Your task to perform on an android device: Search for a dining table on crateandbarrel.com Image 0: 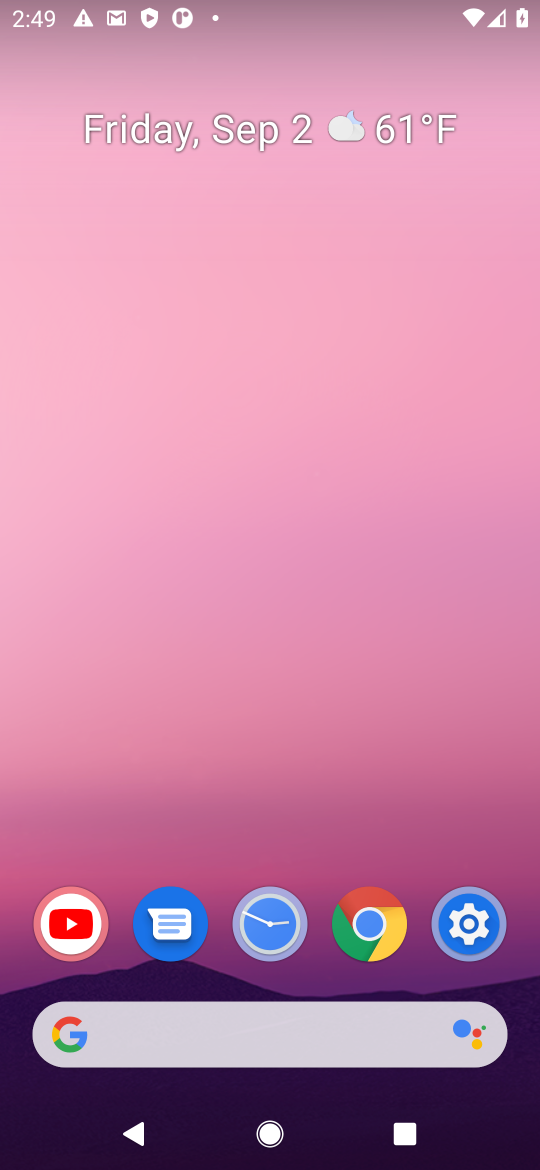
Step 0: press home button
Your task to perform on an android device: Search for a dining table on crateandbarrel.com Image 1: 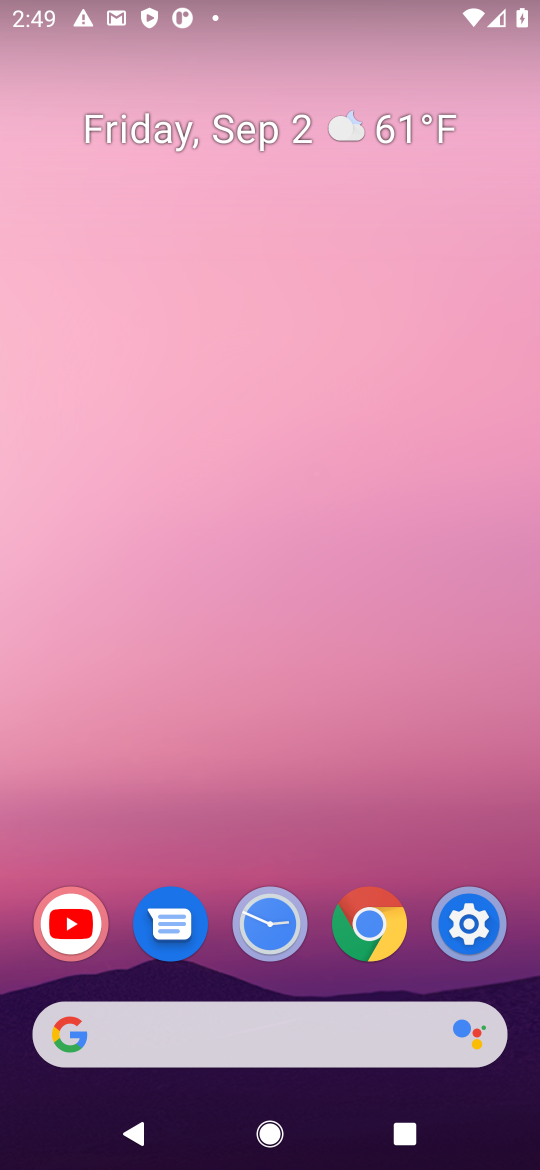
Step 1: click (333, 1031)
Your task to perform on an android device: Search for a dining table on crateandbarrel.com Image 2: 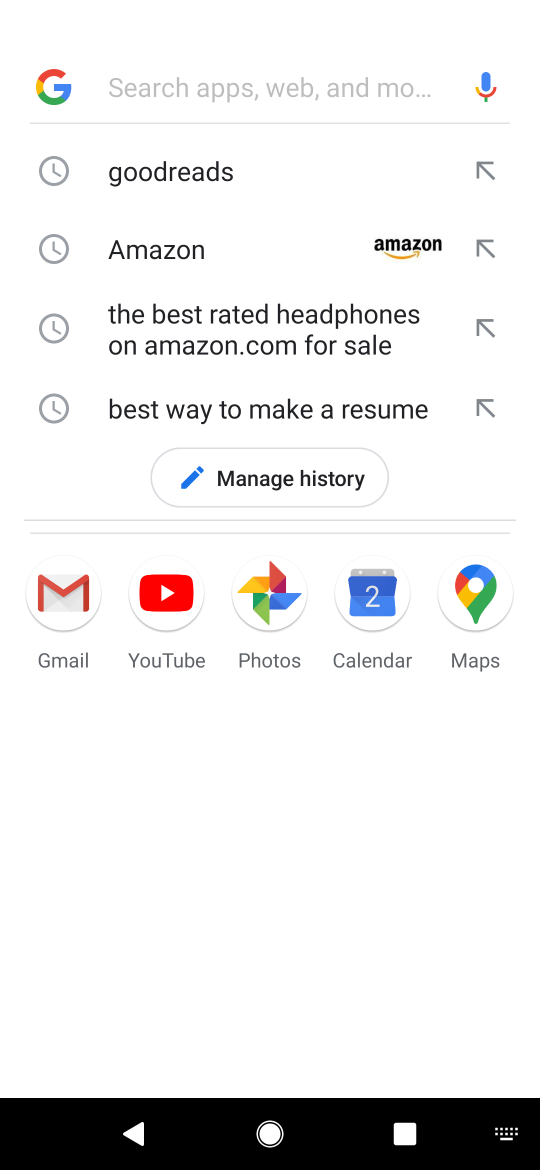
Step 2: press enter
Your task to perform on an android device: Search for a dining table on crateandbarrel.com Image 3: 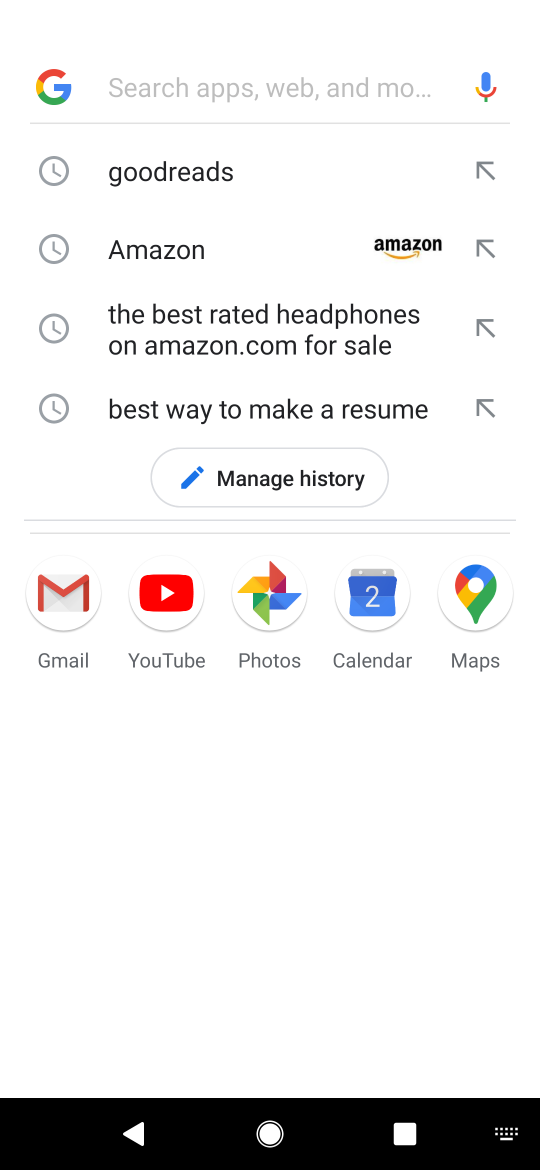
Step 3: type "crateandbarrel.com"
Your task to perform on an android device: Search for a dining table on crateandbarrel.com Image 4: 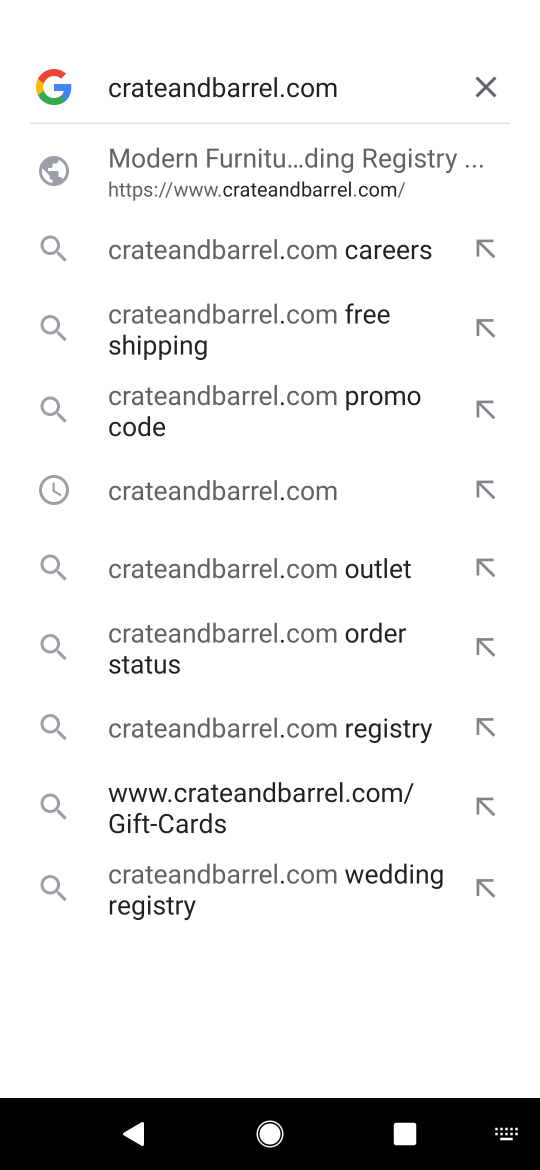
Step 4: click (279, 176)
Your task to perform on an android device: Search for a dining table on crateandbarrel.com Image 5: 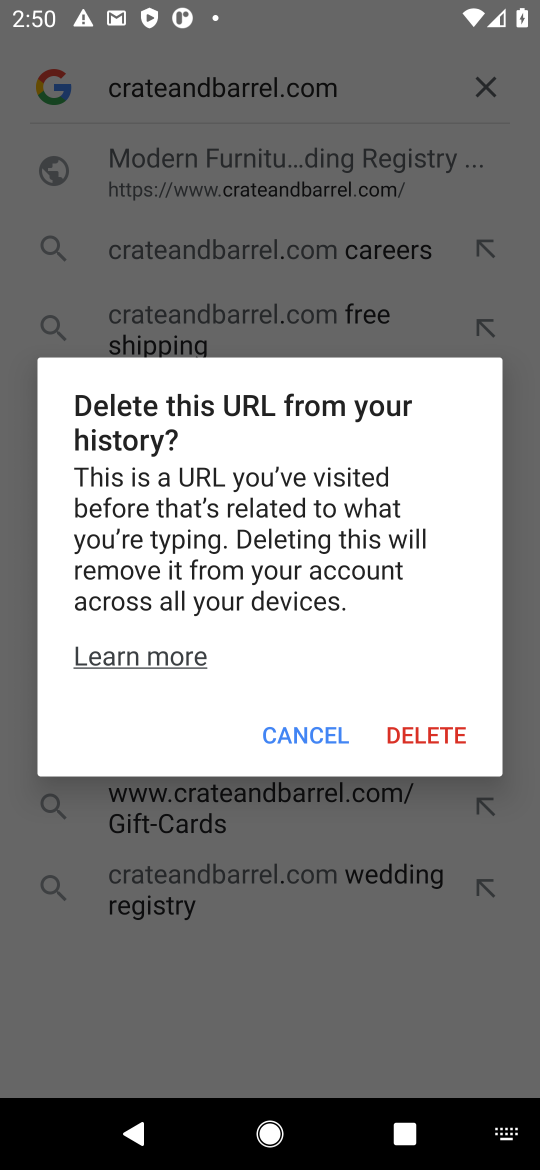
Step 5: click (320, 733)
Your task to perform on an android device: Search for a dining table on crateandbarrel.com Image 6: 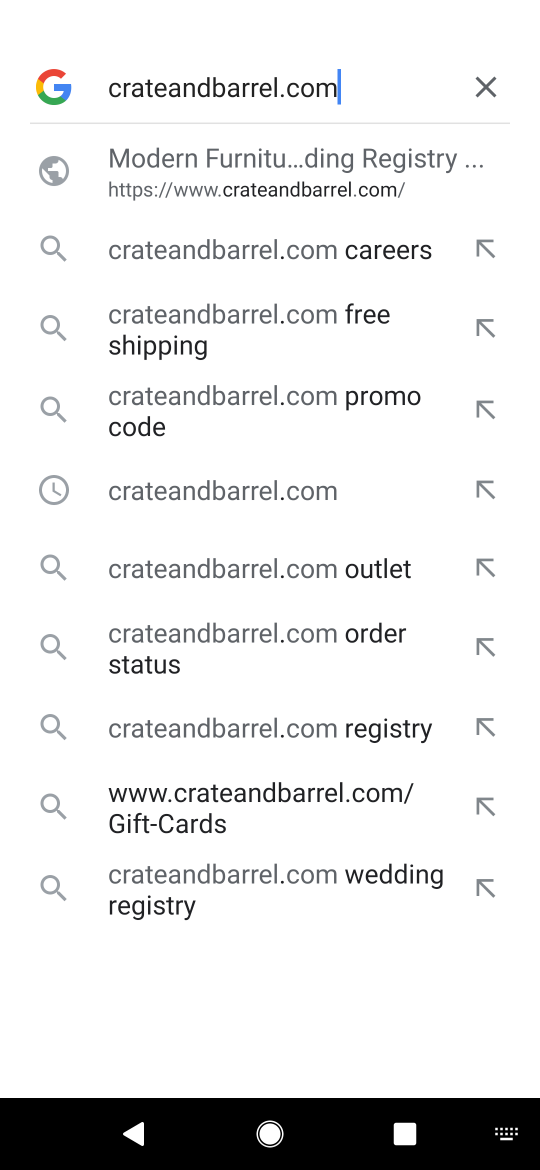
Step 6: click (301, 737)
Your task to perform on an android device: Search for a dining table on crateandbarrel.com Image 7: 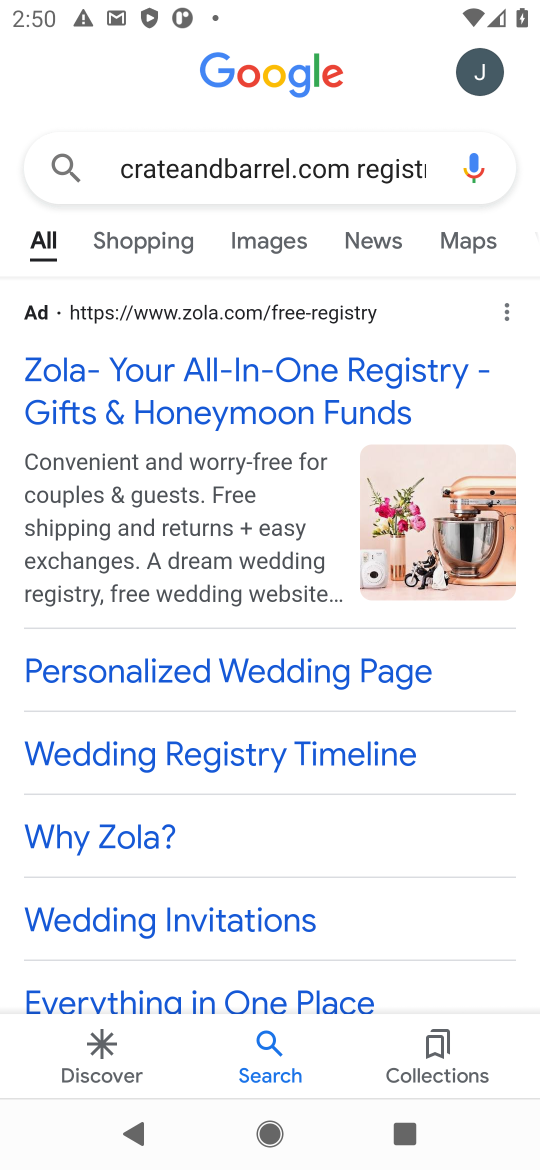
Step 7: press back button
Your task to perform on an android device: Search for a dining table on crateandbarrel.com Image 8: 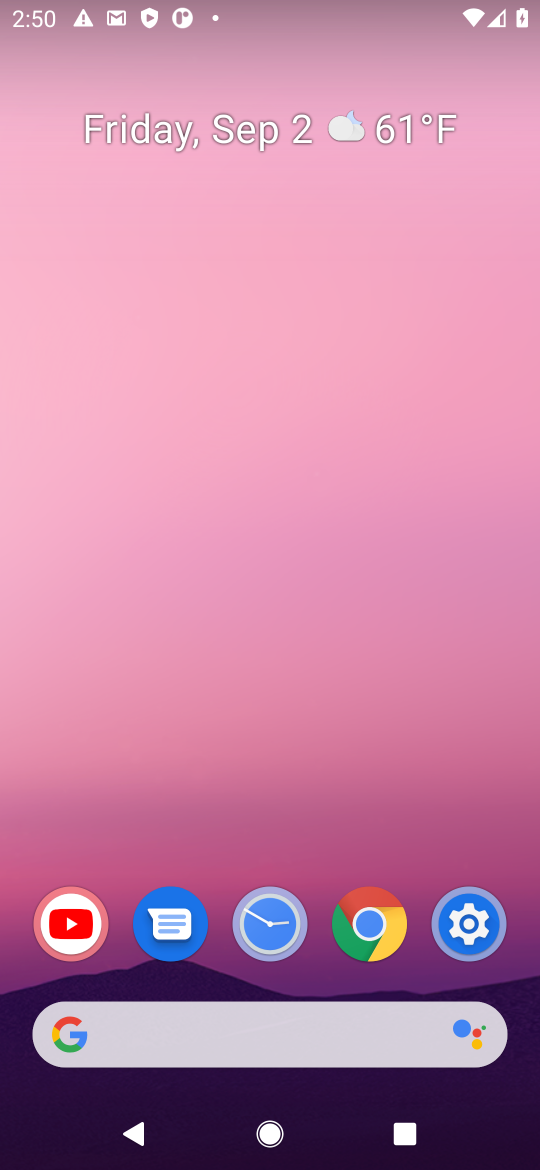
Step 8: click (346, 1047)
Your task to perform on an android device: Search for a dining table on crateandbarrel.com Image 9: 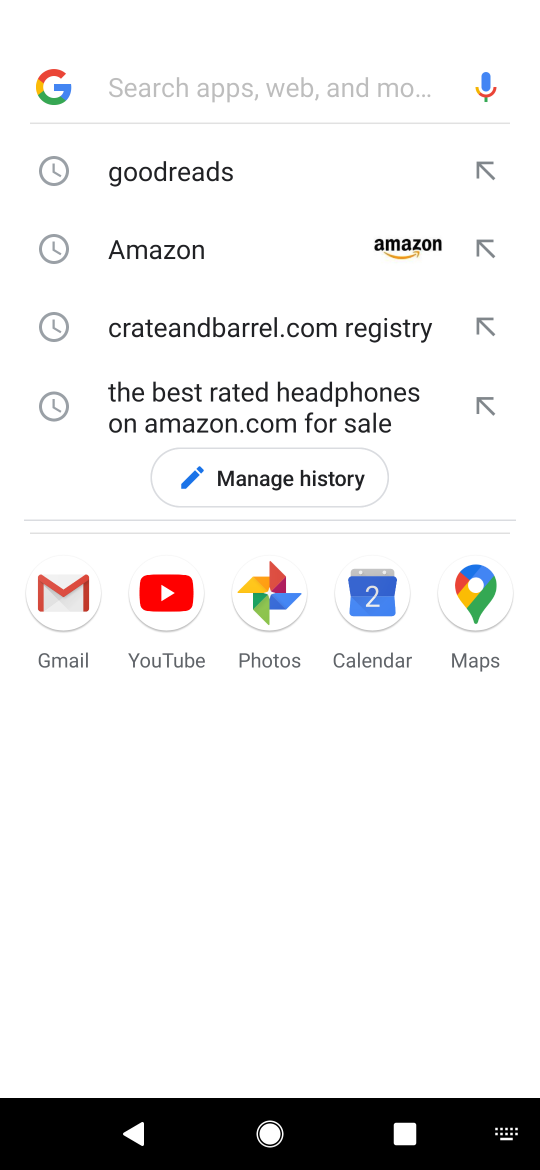
Step 9: press enter
Your task to perform on an android device: Search for a dining table on crateandbarrel.com Image 10: 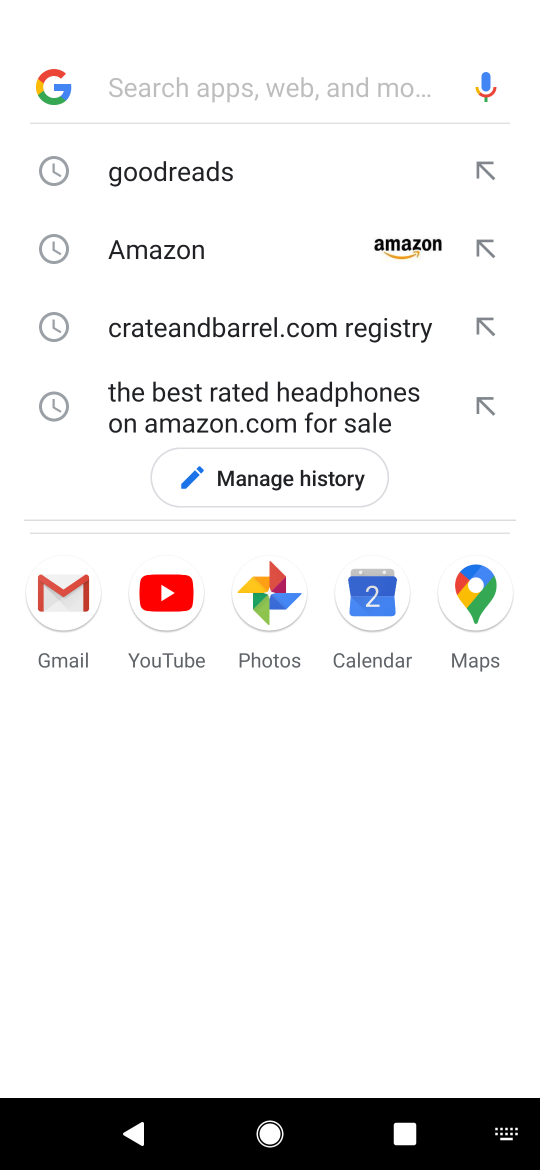
Step 10: type "crateandbarrel.com"
Your task to perform on an android device: Search for a dining table on crateandbarrel.com Image 11: 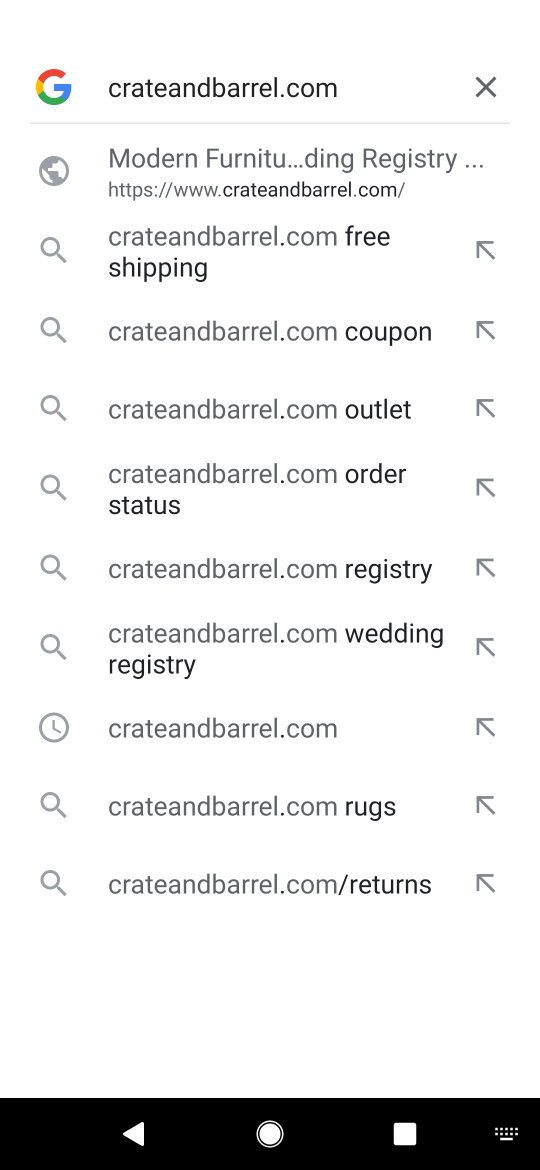
Step 11: click (312, 166)
Your task to perform on an android device: Search for a dining table on crateandbarrel.com Image 12: 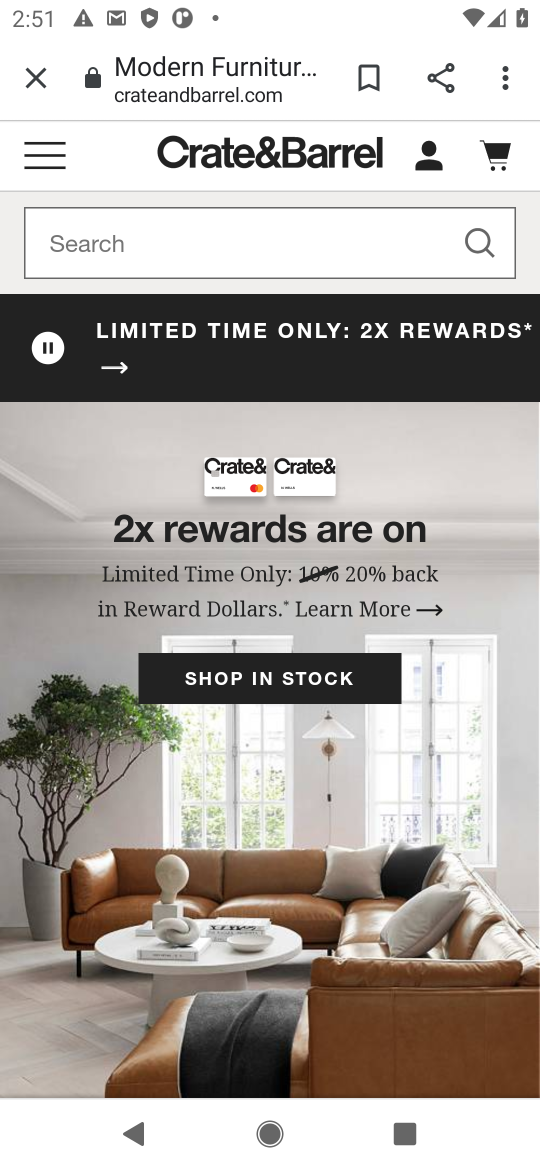
Step 12: click (262, 233)
Your task to perform on an android device: Search for a dining table on crateandbarrel.com Image 13: 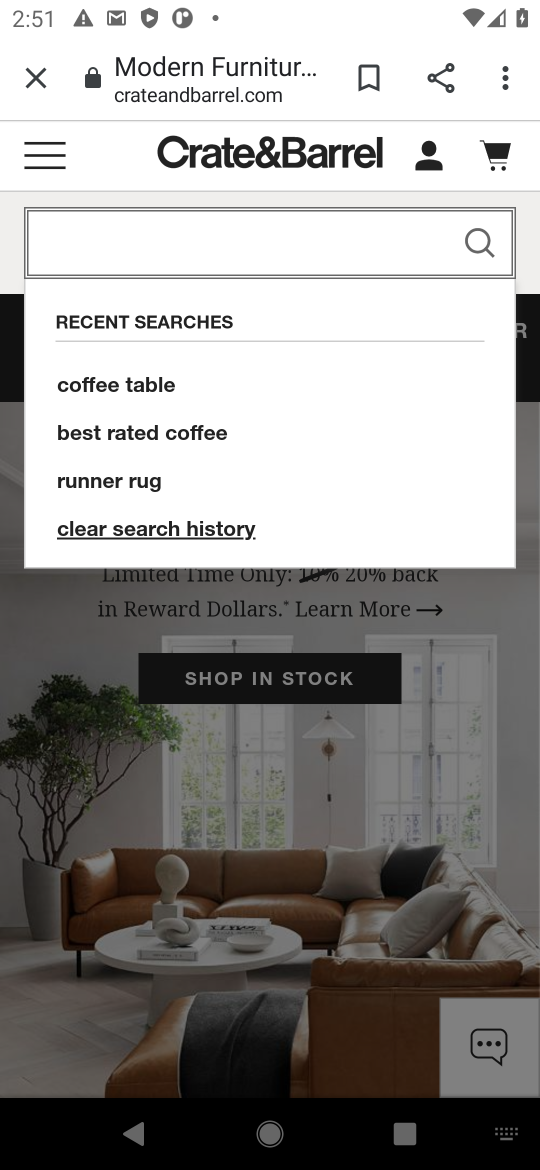
Step 13: type "dining table"
Your task to perform on an android device: Search for a dining table on crateandbarrel.com Image 14: 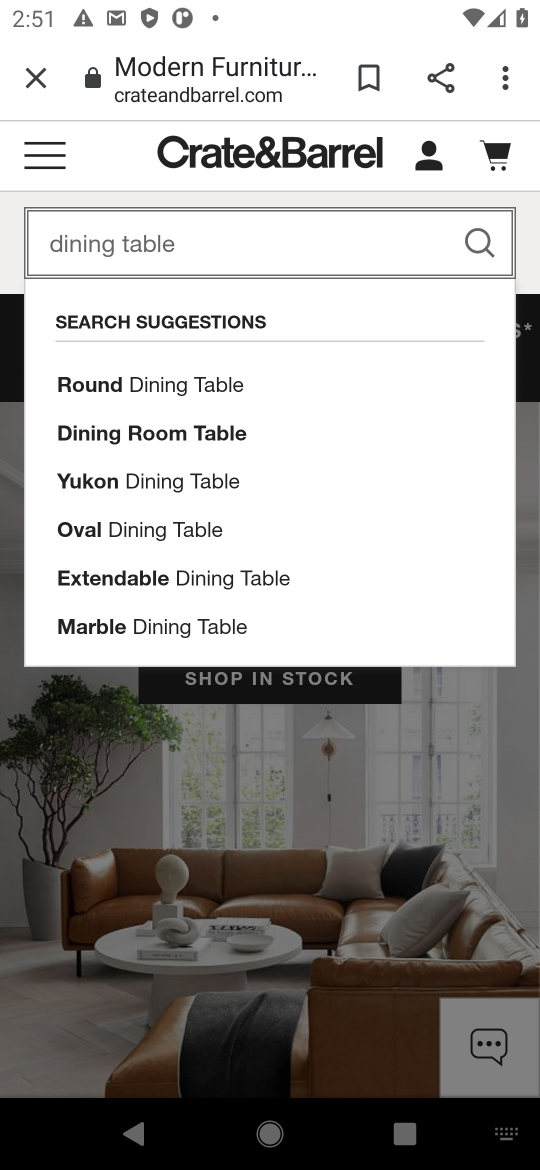
Step 14: click (479, 250)
Your task to perform on an android device: Search for a dining table on crateandbarrel.com Image 15: 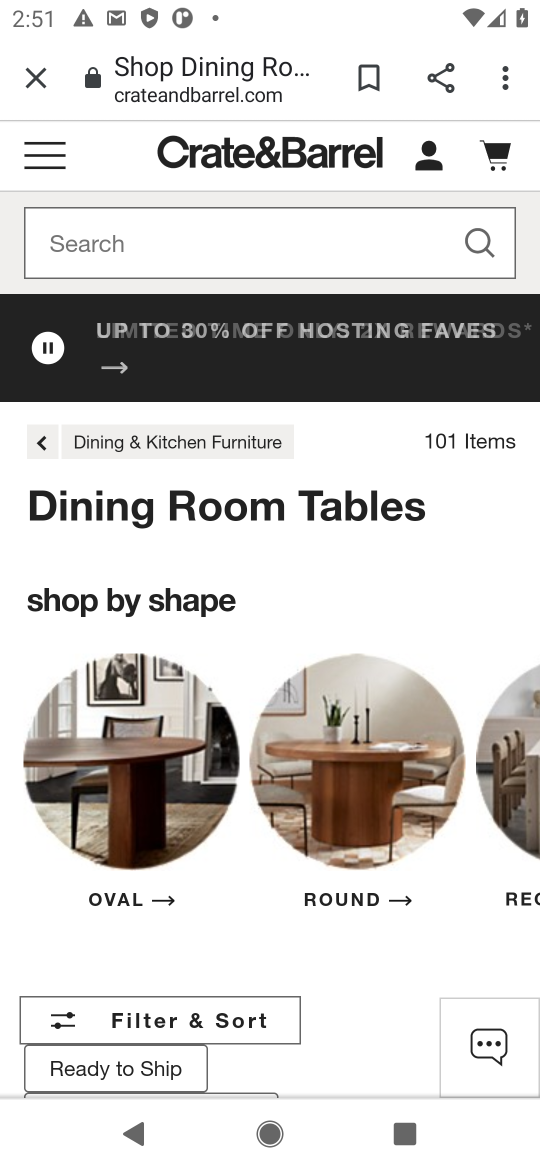
Step 15: task complete